Your task to perform on an android device: Show me the alarms in the clock app Image 0: 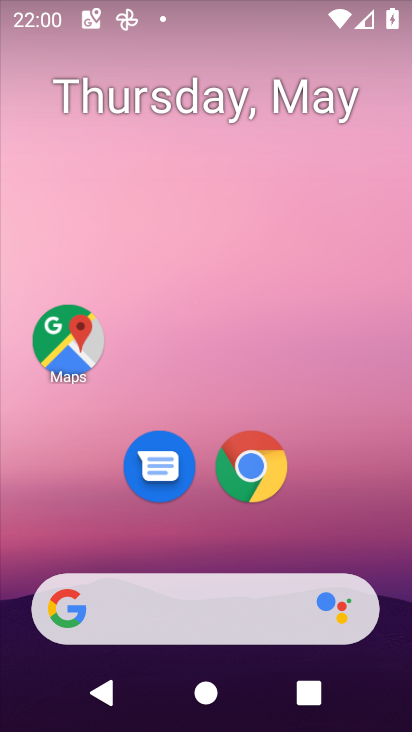
Step 0: drag from (368, 537) to (314, 141)
Your task to perform on an android device: Show me the alarms in the clock app Image 1: 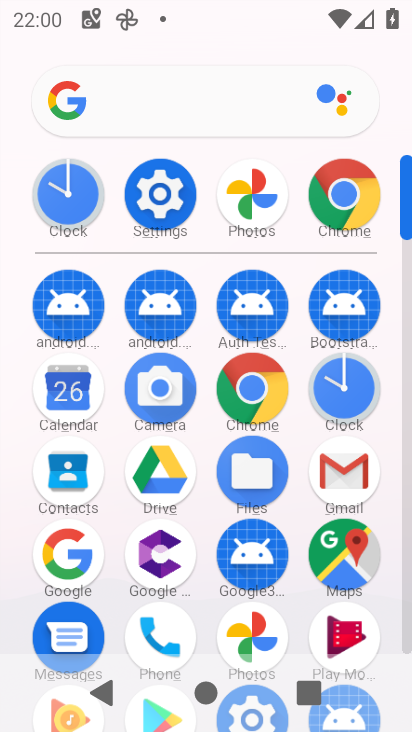
Step 1: click (55, 199)
Your task to perform on an android device: Show me the alarms in the clock app Image 2: 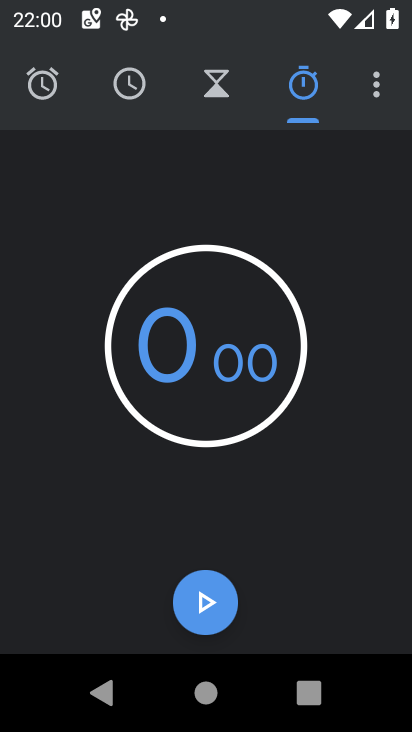
Step 2: click (74, 106)
Your task to perform on an android device: Show me the alarms in the clock app Image 3: 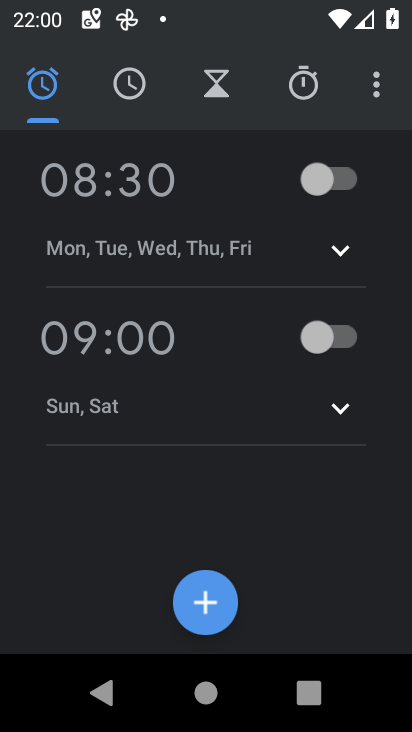
Step 3: task complete